Your task to perform on an android device: Search for sushi restaurants on Maps Image 0: 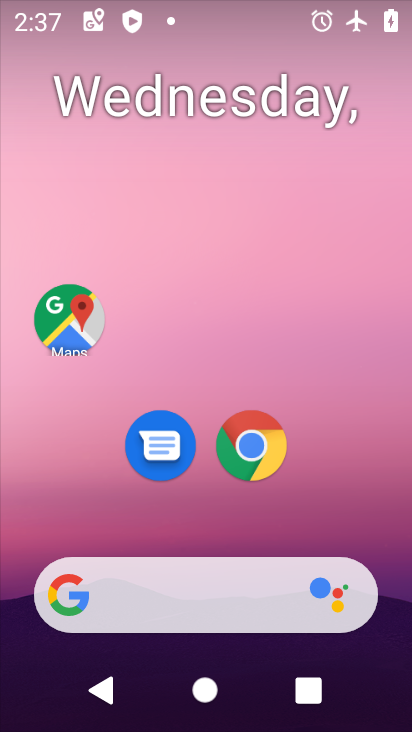
Step 0: click (60, 335)
Your task to perform on an android device: Search for sushi restaurants on Maps Image 1: 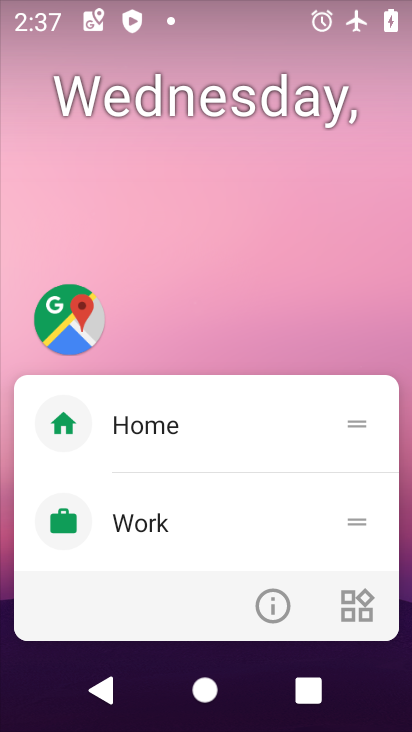
Step 1: click (71, 356)
Your task to perform on an android device: Search for sushi restaurants on Maps Image 2: 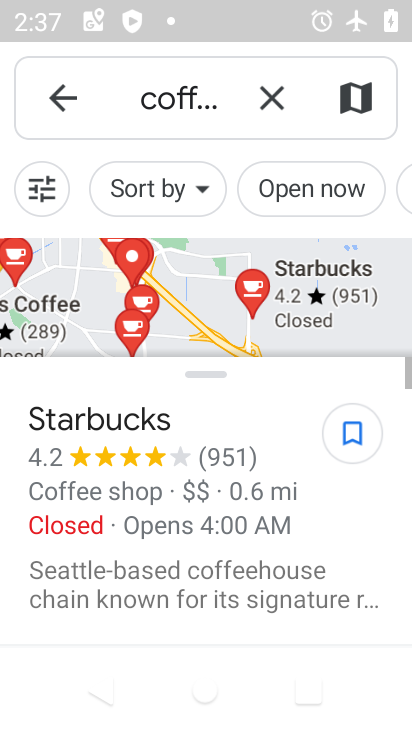
Step 2: click (268, 89)
Your task to perform on an android device: Search for sushi restaurants on Maps Image 3: 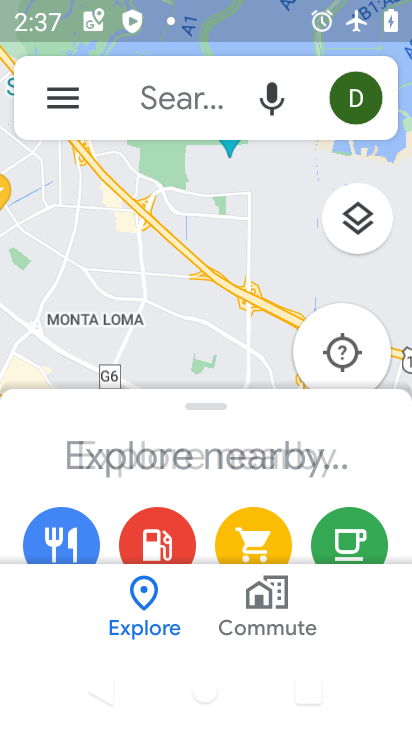
Step 3: click (204, 98)
Your task to perform on an android device: Search for sushi restaurants on Maps Image 4: 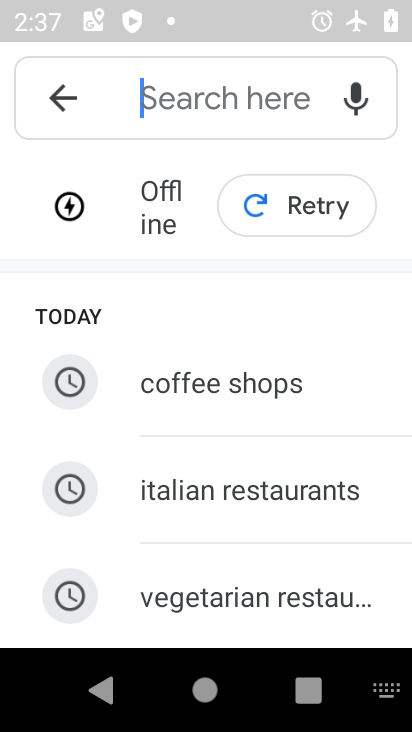
Step 4: type "sushi restaurants"
Your task to perform on an android device: Search for sushi restaurants on Maps Image 5: 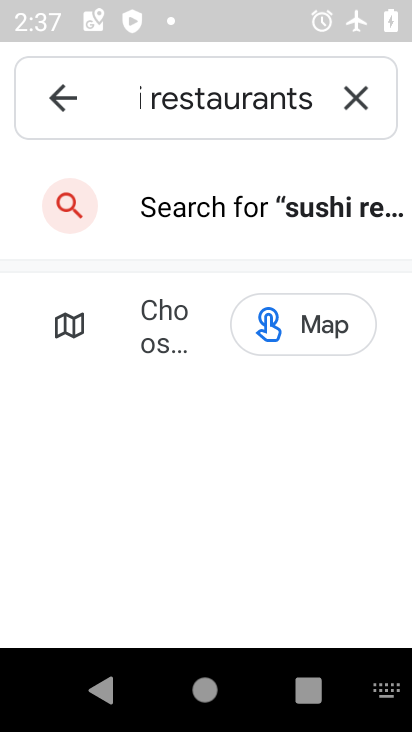
Step 5: task complete